Your task to perform on an android device: Open privacy settings Image 0: 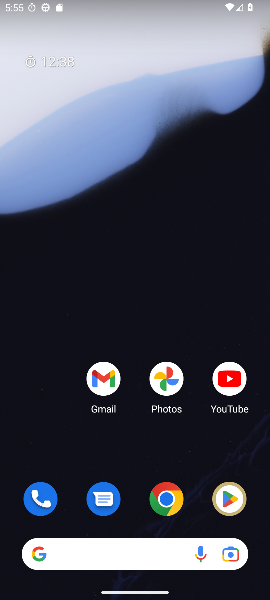
Step 0: drag from (103, 497) to (66, 53)
Your task to perform on an android device: Open privacy settings Image 1: 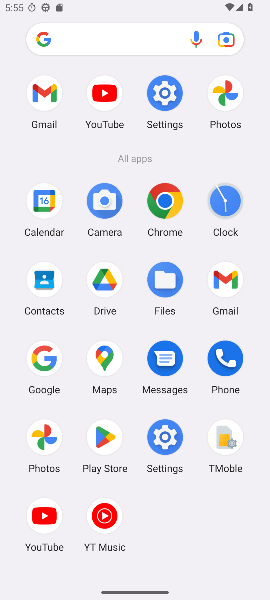
Step 1: click (167, 92)
Your task to perform on an android device: Open privacy settings Image 2: 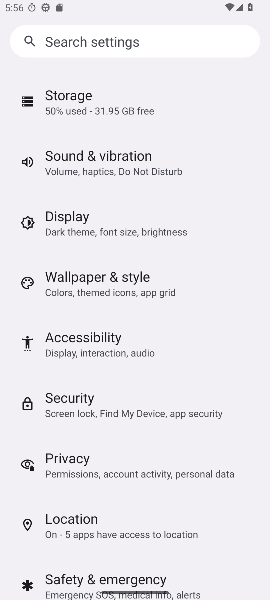
Step 2: click (146, 487)
Your task to perform on an android device: Open privacy settings Image 3: 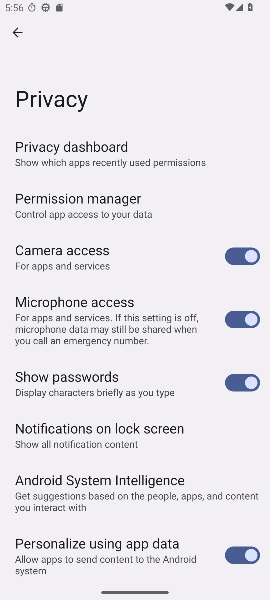
Step 3: task complete